Your task to perform on an android device: open a bookmark in the chrome app Image 0: 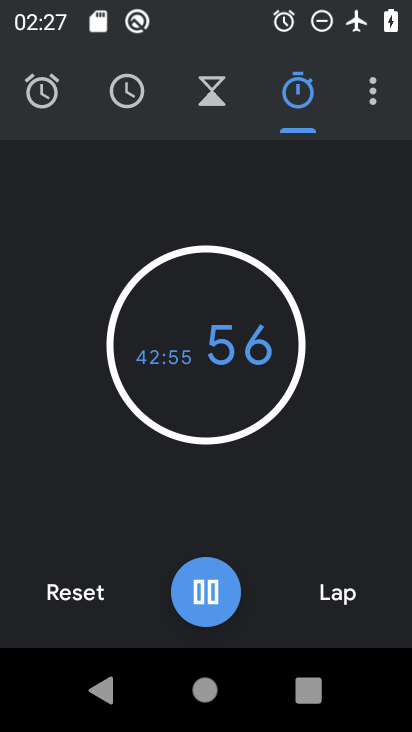
Step 0: press home button
Your task to perform on an android device: open a bookmark in the chrome app Image 1: 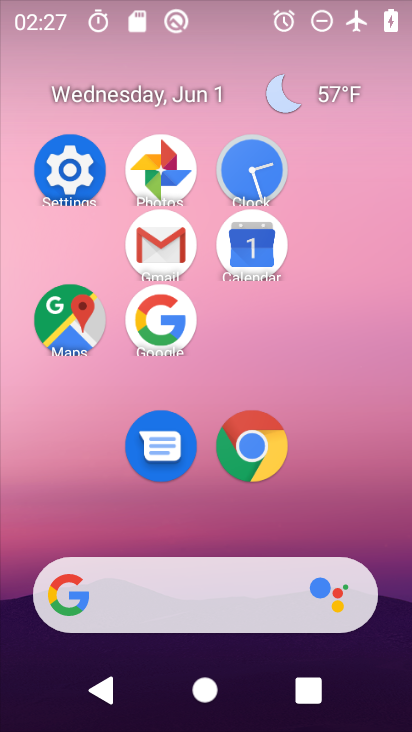
Step 1: click (273, 472)
Your task to perform on an android device: open a bookmark in the chrome app Image 2: 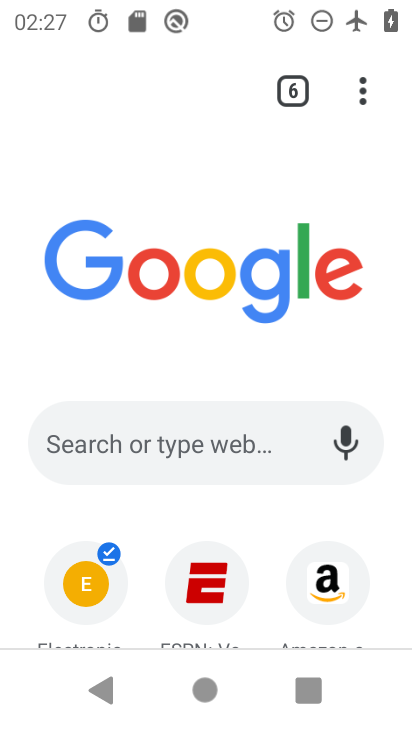
Step 2: click (376, 87)
Your task to perform on an android device: open a bookmark in the chrome app Image 3: 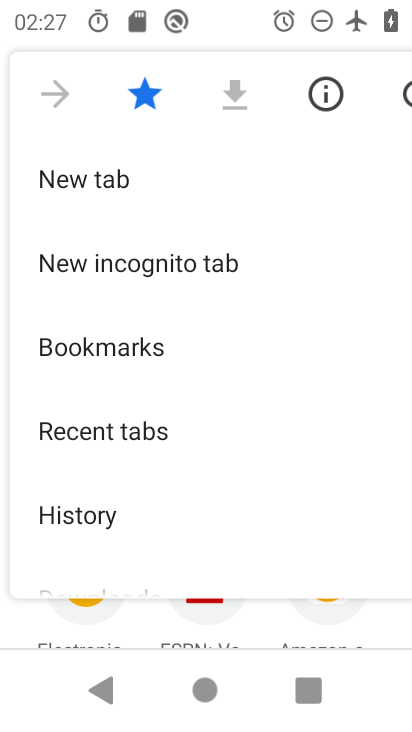
Step 3: drag from (225, 453) to (255, 308)
Your task to perform on an android device: open a bookmark in the chrome app Image 4: 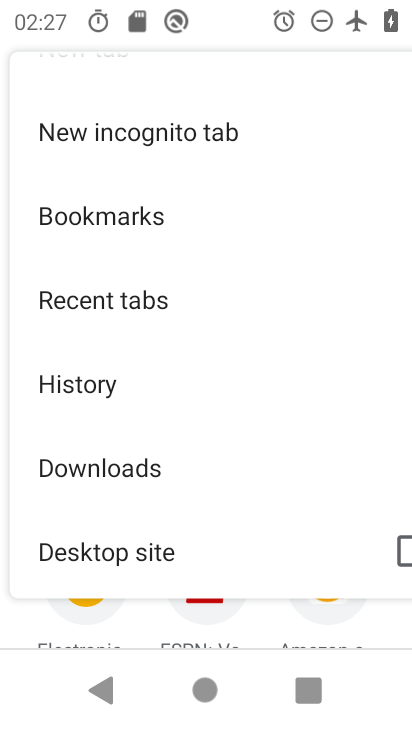
Step 4: click (166, 226)
Your task to perform on an android device: open a bookmark in the chrome app Image 5: 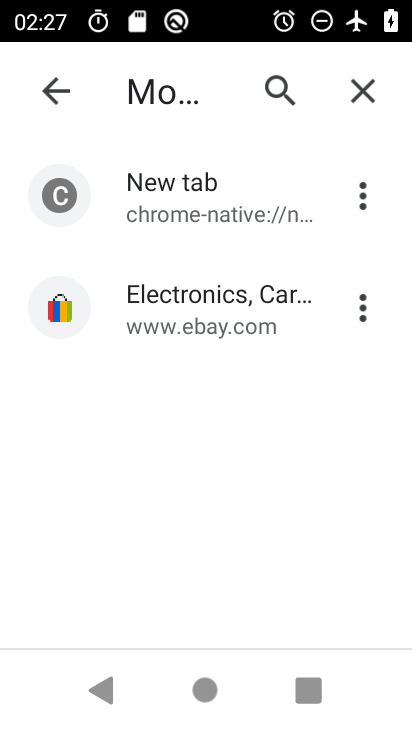
Step 5: click (203, 313)
Your task to perform on an android device: open a bookmark in the chrome app Image 6: 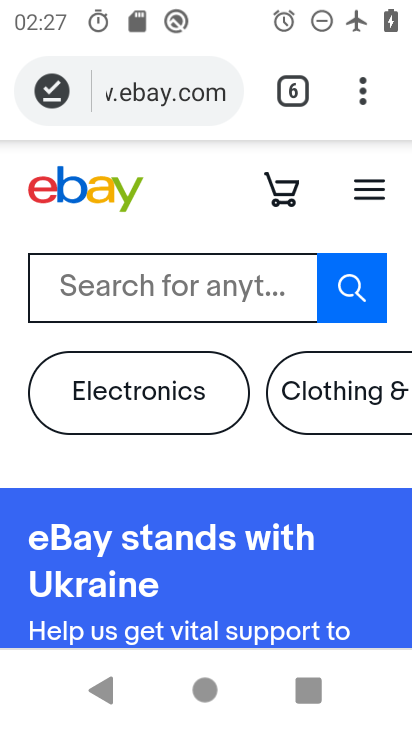
Step 6: task complete